Your task to perform on an android device: add a contact Image 0: 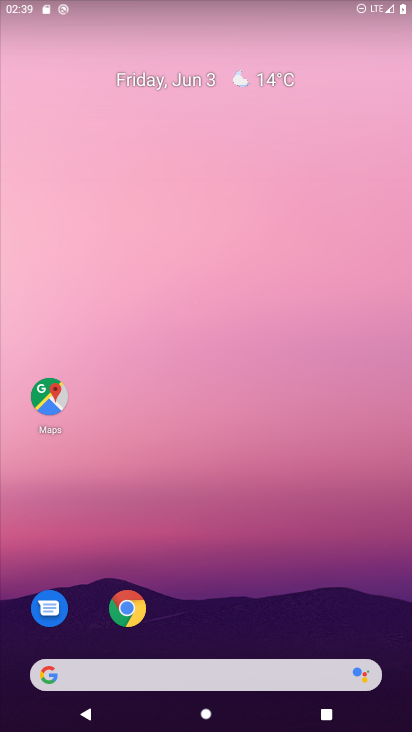
Step 0: drag from (276, 593) to (229, 169)
Your task to perform on an android device: add a contact Image 1: 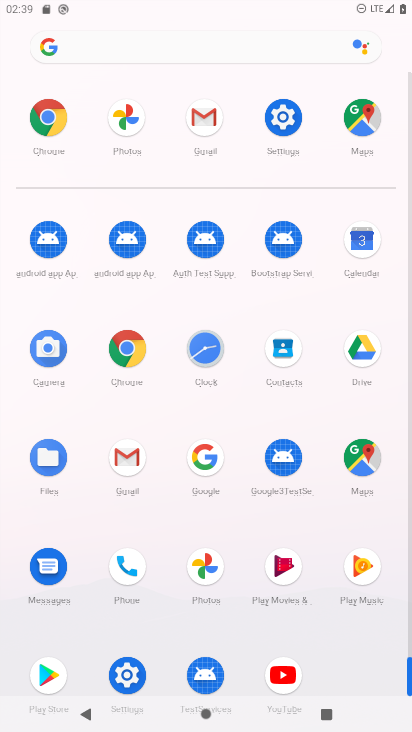
Step 1: click (288, 346)
Your task to perform on an android device: add a contact Image 2: 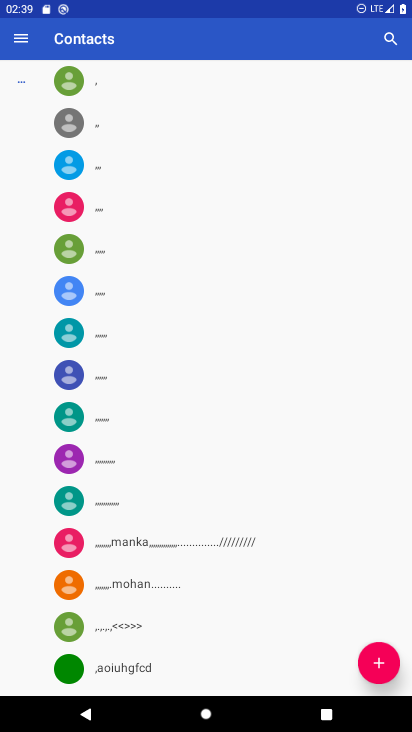
Step 2: click (385, 666)
Your task to perform on an android device: add a contact Image 3: 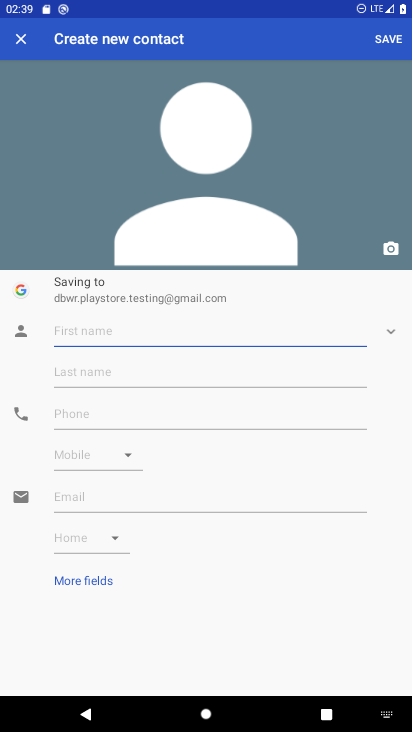
Step 3: click (204, 335)
Your task to perform on an android device: add a contact Image 4: 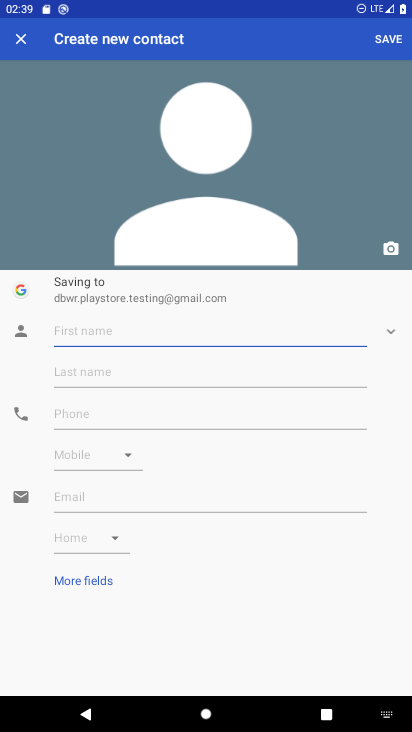
Step 4: type "dhaniya"
Your task to perform on an android device: add a contact Image 5: 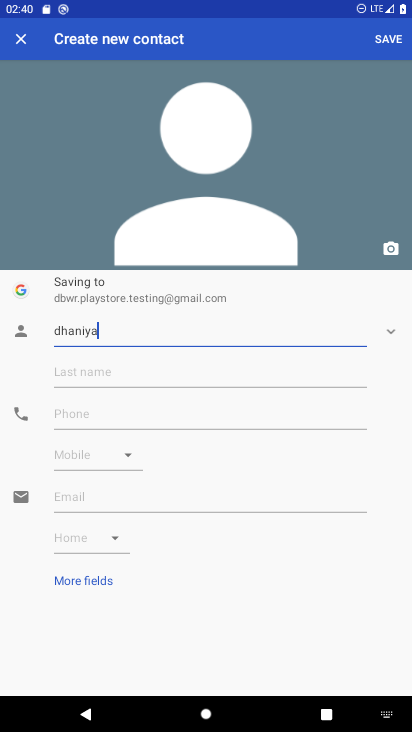
Step 5: click (380, 38)
Your task to perform on an android device: add a contact Image 6: 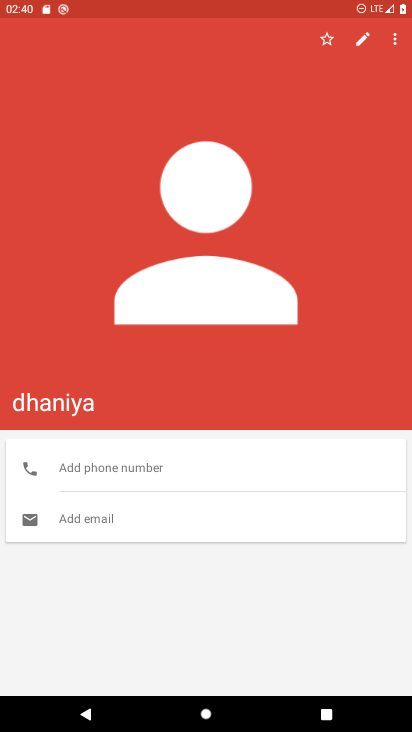
Step 6: task complete